Your task to perform on an android device: star an email in the gmail app Image 0: 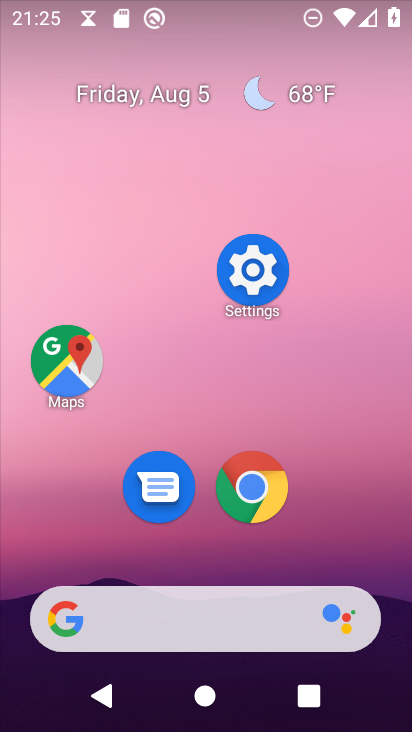
Step 0: drag from (237, 619) to (291, 67)
Your task to perform on an android device: star an email in the gmail app Image 1: 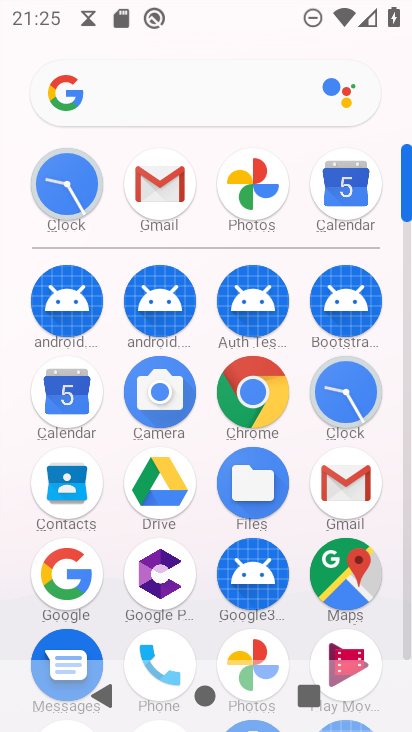
Step 1: click (144, 185)
Your task to perform on an android device: star an email in the gmail app Image 2: 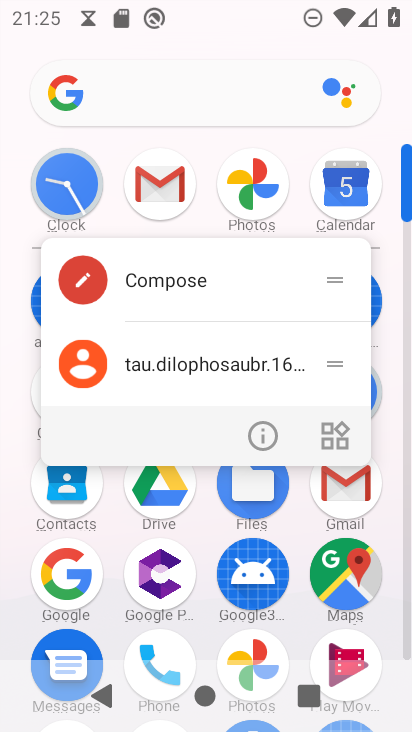
Step 2: click (166, 187)
Your task to perform on an android device: star an email in the gmail app Image 3: 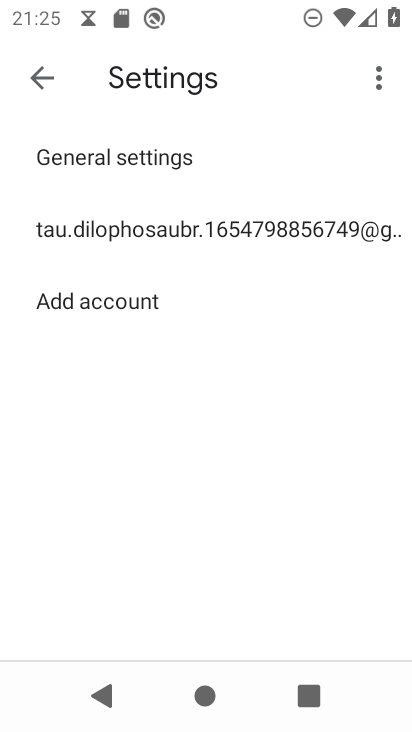
Step 3: click (44, 82)
Your task to perform on an android device: star an email in the gmail app Image 4: 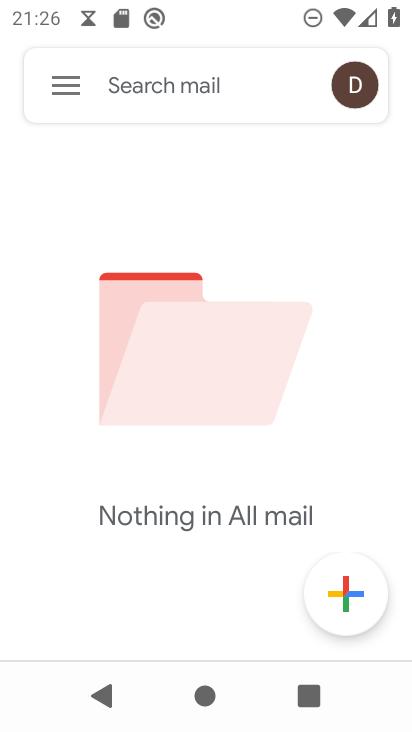
Step 4: task complete